Your task to perform on an android device: toggle notifications settings in the gmail app Image 0: 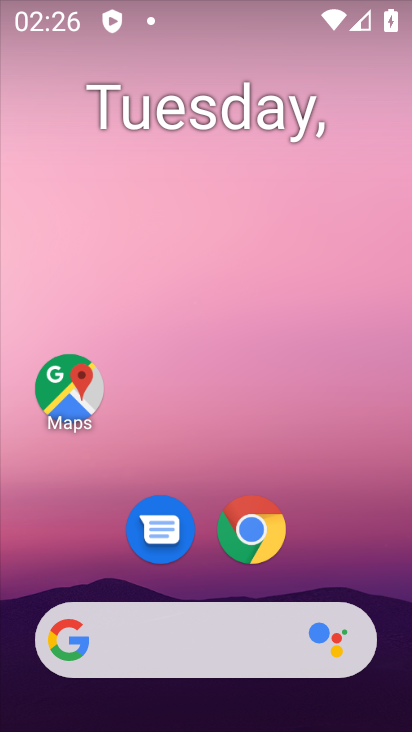
Step 0: drag from (310, 542) to (361, 38)
Your task to perform on an android device: toggle notifications settings in the gmail app Image 1: 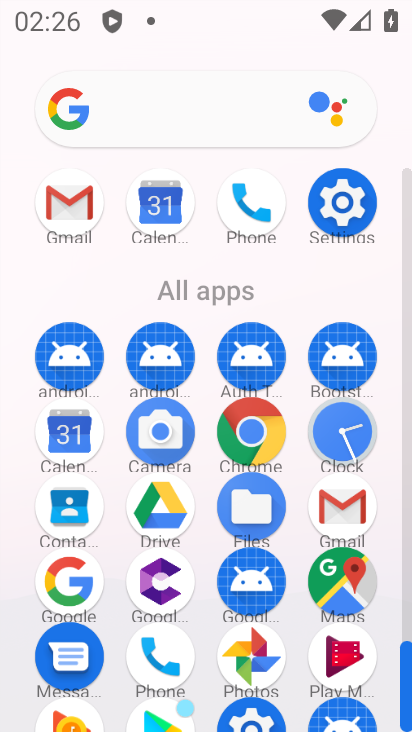
Step 1: click (69, 214)
Your task to perform on an android device: toggle notifications settings in the gmail app Image 2: 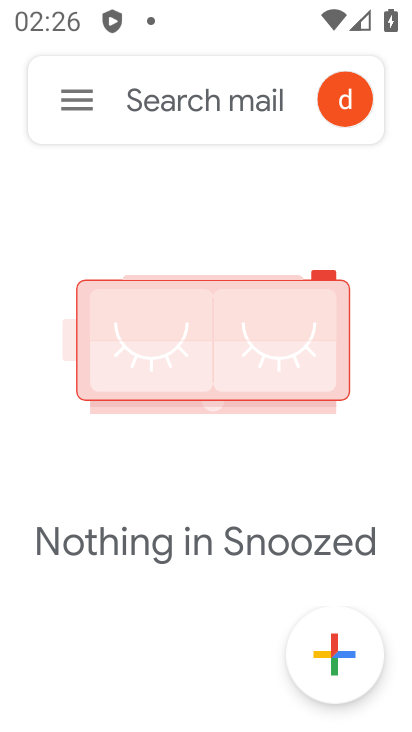
Step 2: click (66, 105)
Your task to perform on an android device: toggle notifications settings in the gmail app Image 3: 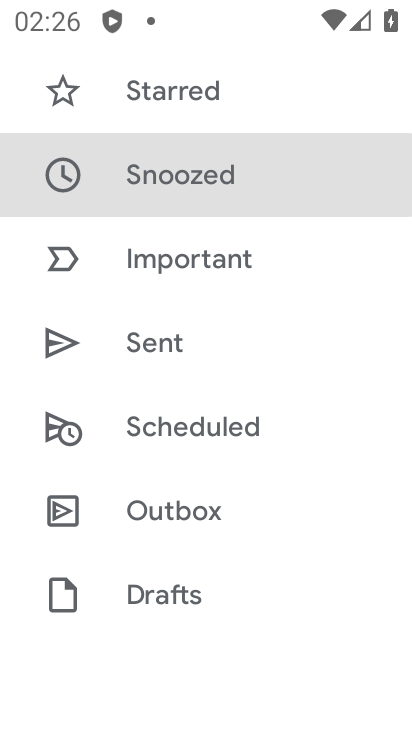
Step 3: drag from (260, 652) to (308, 118)
Your task to perform on an android device: toggle notifications settings in the gmail app Image 4: 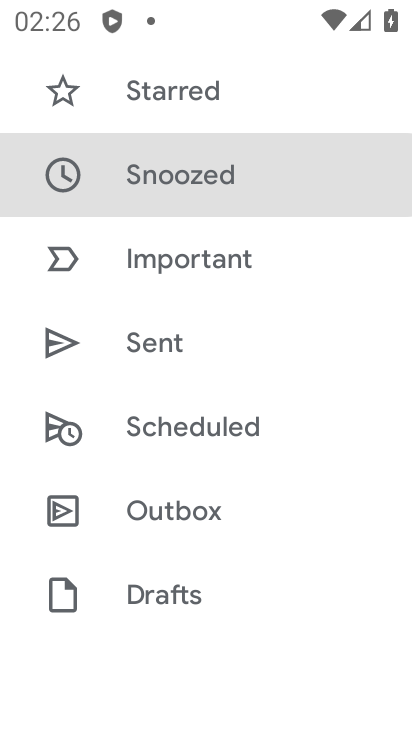
Step 4: drag from (243, 626) to (276, 188)
Your task to perform on an android device: toggle notifications settings in the gmail app Image 5: 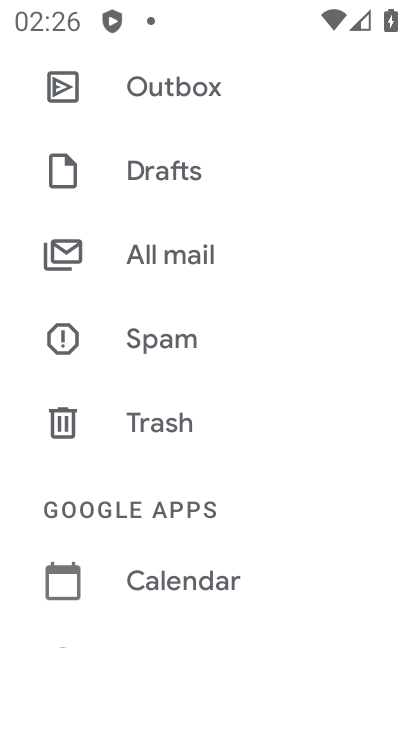
Step 5: drag from (206, 637) to (291, 212)
Your task to perform on an android device: toggle notifications settings in the gmail app Image 6: 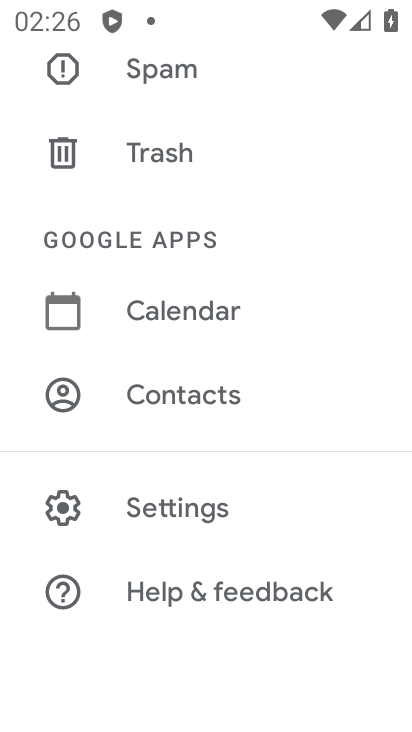
Step 6: click (197, 514)
Your task to perform on an android device: toggle notifications settings in the gmail app Image 7: 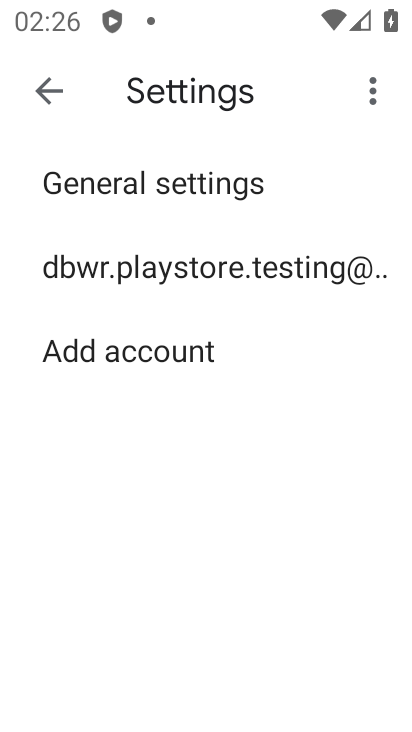
Step 7: click (223, 249)
Your task to perform on an android device: toggle notifications settings in the gmail app Image 8: 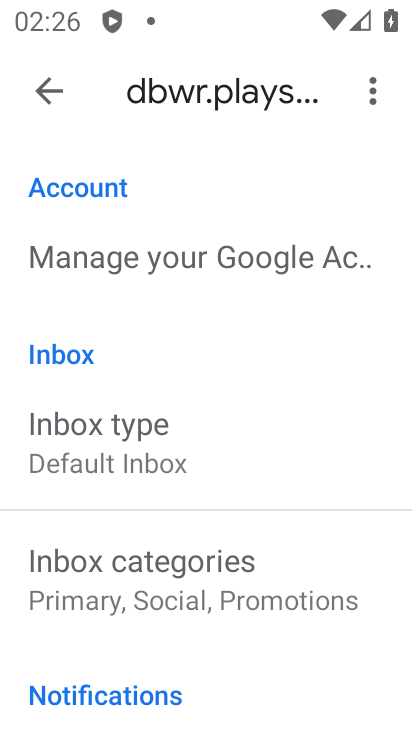
Step 8: drag from (179, 609) to (165, 315)
Your task to perform on an android device: toggle notifications settings in the gmail app Image 9: 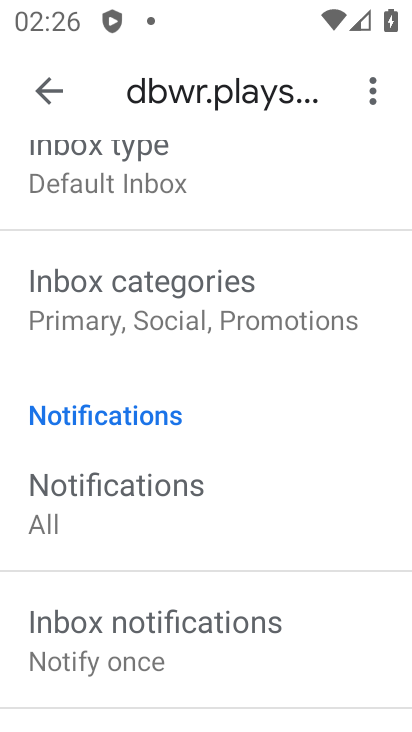
Step 9: drag from (96, 579) to (124, 279)
Your task to perform on an android device: toggle notifications settings in the gmail app Image 10: 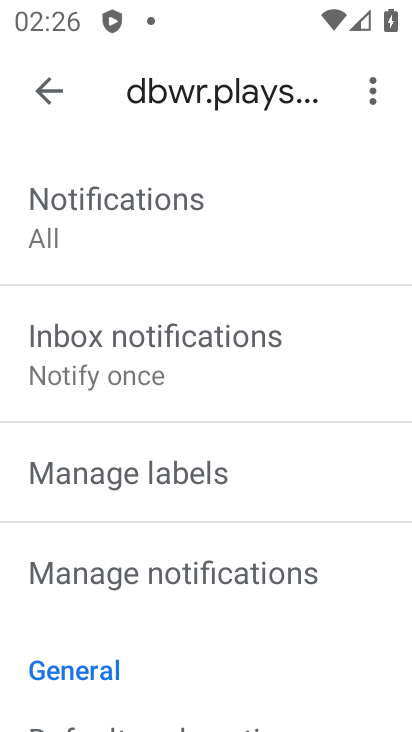
Step 10: click (144, 549)
Your task to perform on an android device: toggle notifications settings in the gmail app Image 11: 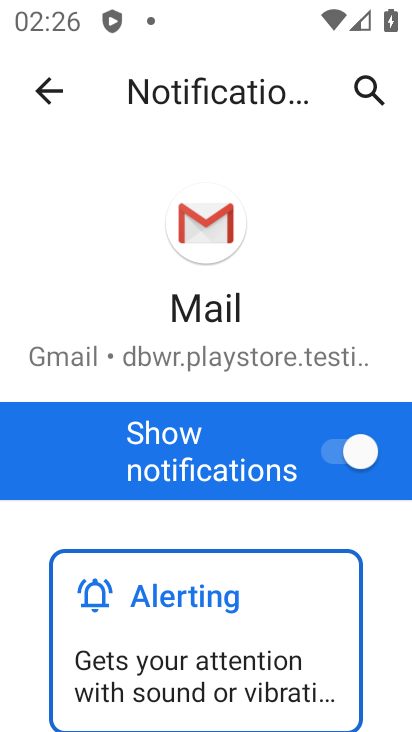
Step 11: click (328, 438)
Your task to perform on an android device: toggle notifications settings in the gmail app Image 12: 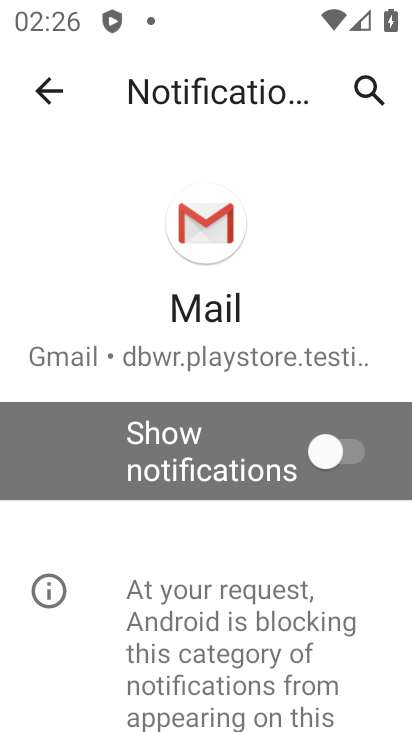
Step 12: task complete